Your task to perform on an android device: Open the web browser Image 0: 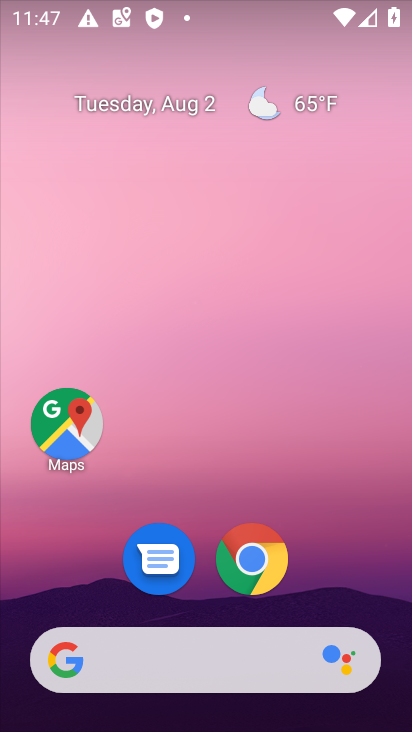
Step 0: click (251, 561)
Your task to perform on an android device: Open the web browser Image 1: 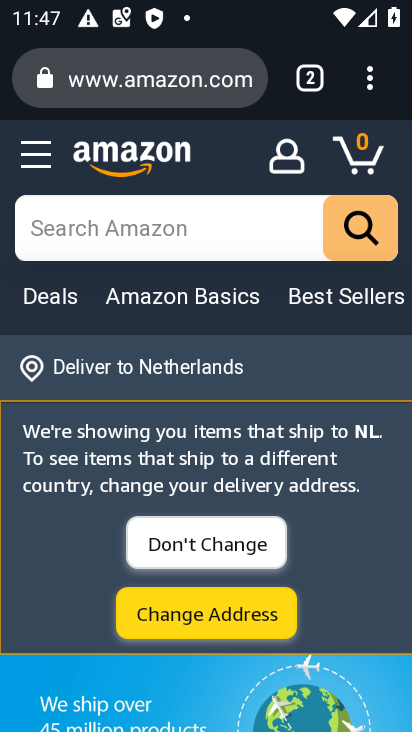
Step 1: task complete